Your task to perform on an android device: turn on notifications settings in the gmail app Image 0: 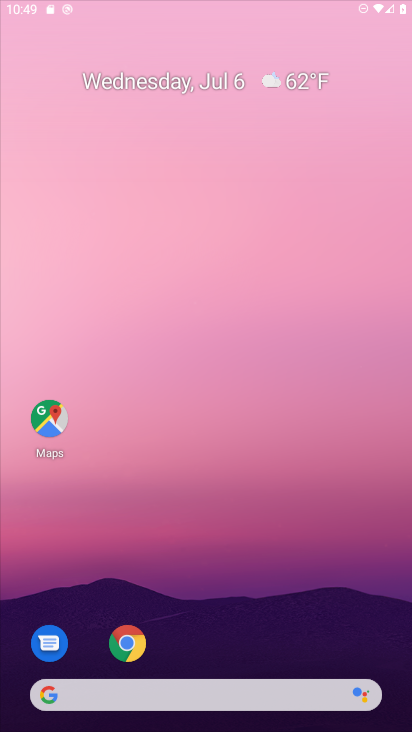
Step 0: press home button
Your task to perform on an android device: turn on notifications settings in the gmail app Image 1: 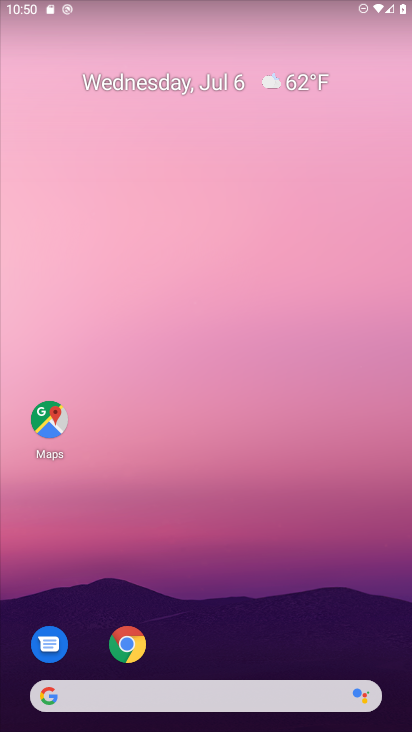
Step 1: press home button
Your task to perform on an android device: turn on notifications settings in the gmail app Image 2: 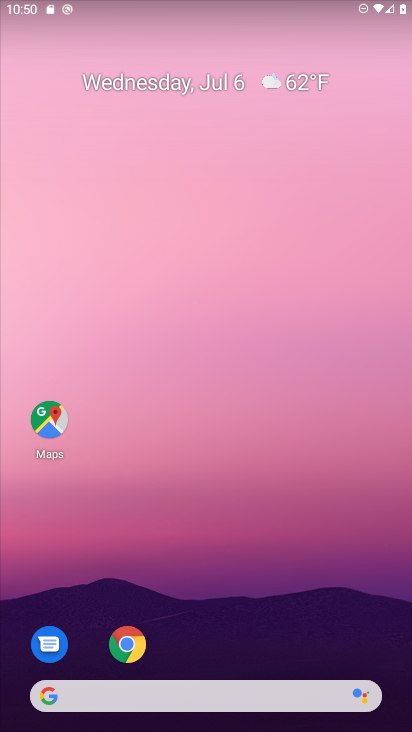
Step 2: drag from (221, 615) to (181, 4)
Your task to perform on an android device: turn on notifications settings in the gmail app Image 3: 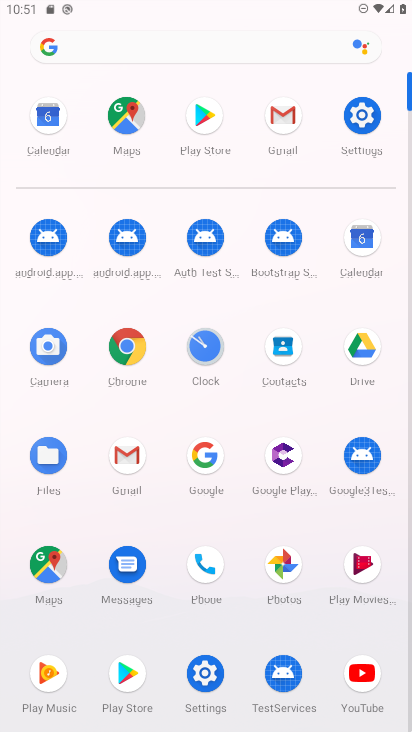
Step 3: click (282, 117)
Your task to perform on an android device: turn on notifications settings in the gmail app Image 4: 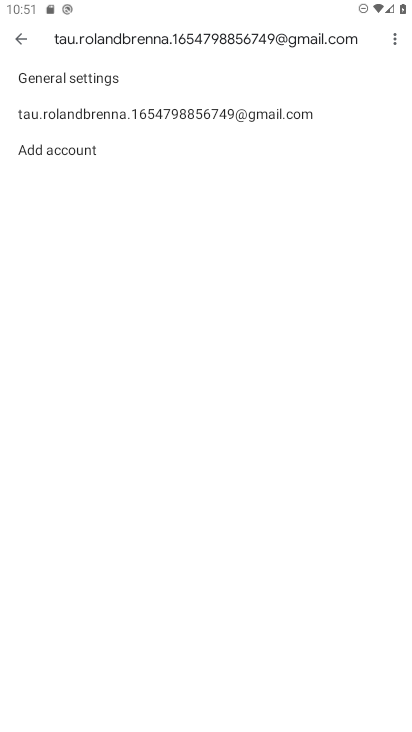
Step 4: click (53, 76)
Your task to perform on an android device: turn on notifications settings in the gmail app Image 5: 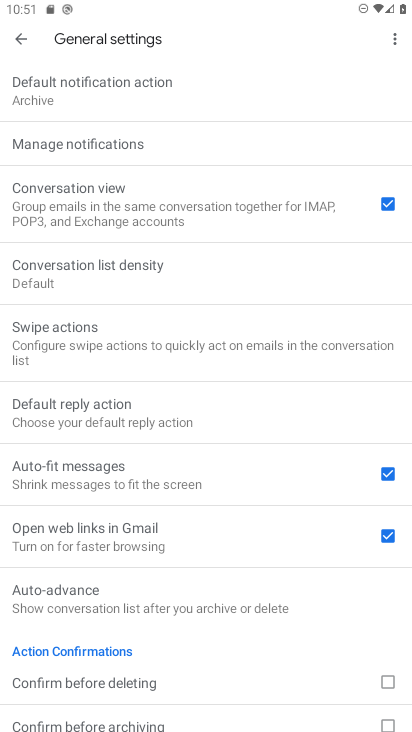
Step 5: click (74, 147)
Your task to perform on an android device: turn on notifications settings in the gmail app Image 6: 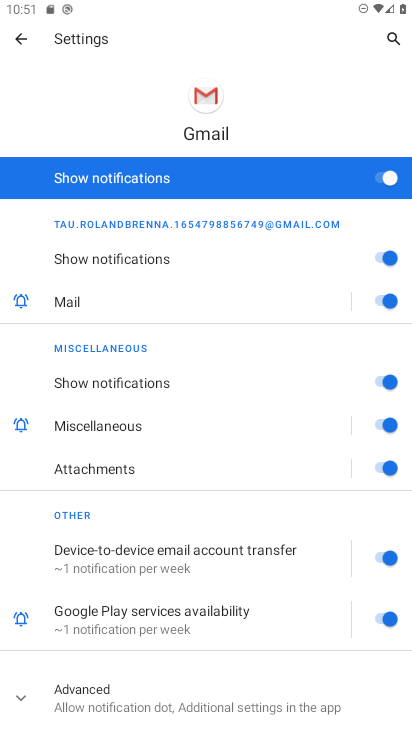
Step 6: task complete